Your task to perform on an android device: Show me the alarms in the clock app Image 0: 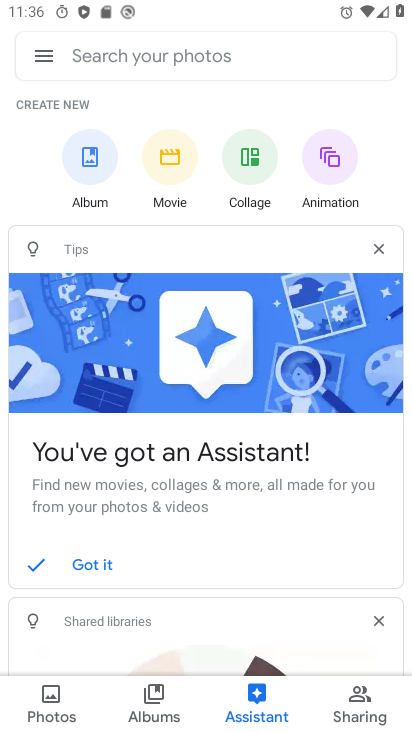
Step 0: press home button
Your task to perform on an android device: Show me the alarms in the clock app Image 1: 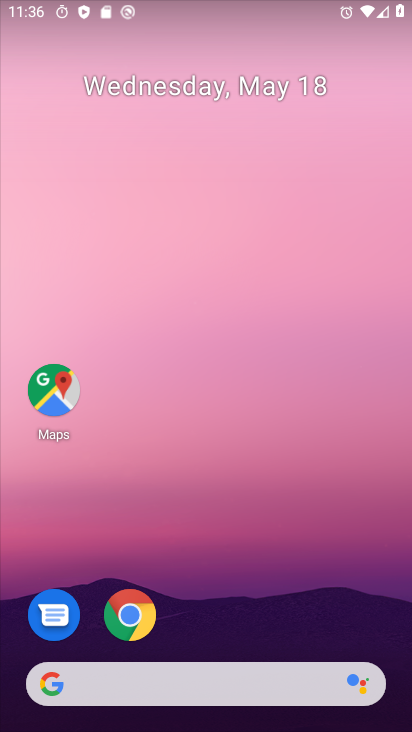
Step 1: drag from (15, 629) to (261, 171)
Your task to perform on an android device: Show me the alarms in the clock app Image 2: 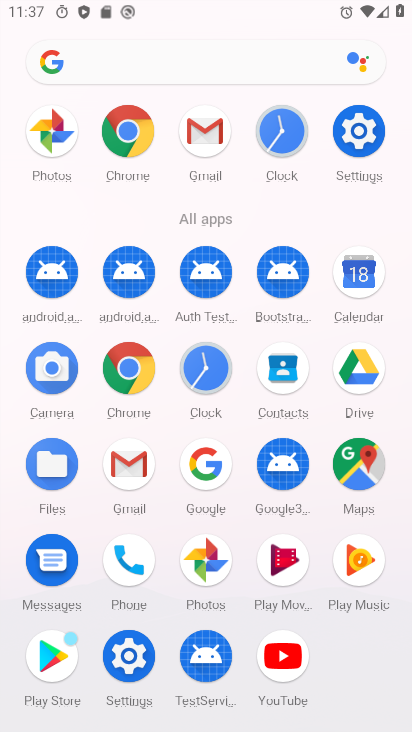
Step 2: click (282, 147)
Your task to perform on an android device: Show me the alarms in the clock app Image 3: 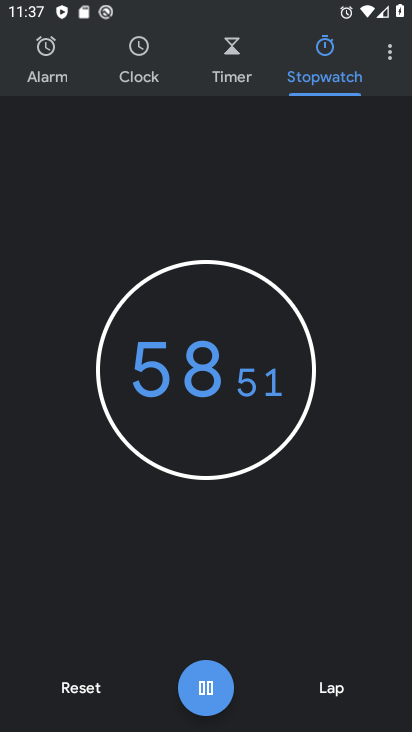
Step 3: click (37, 68)
Your task to perform on an android device: Show me the alarms in the clock app Image 4: 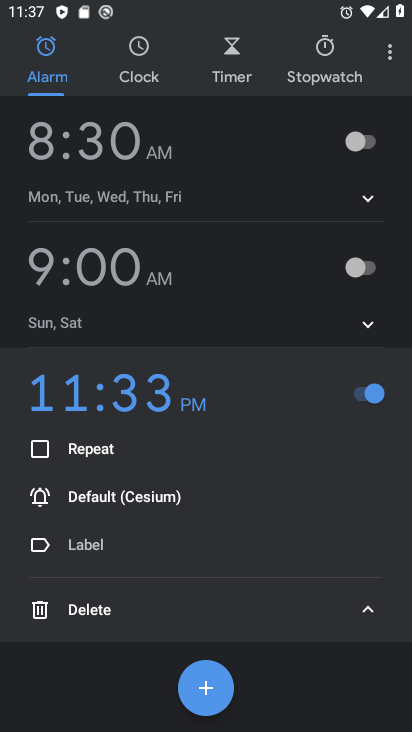
Step 4: task complete